Your task to perform on an android device: Go to display settings Image 0: 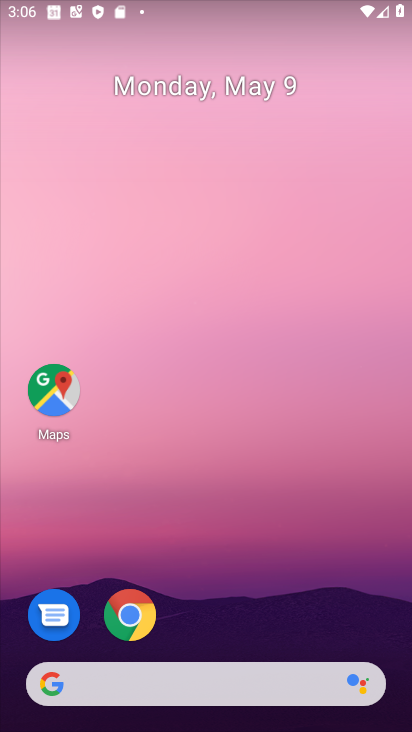
Step 0: drag from (207, 626) to (204, 325)
Your task to perform on an android device: Go to display settings Image 1: 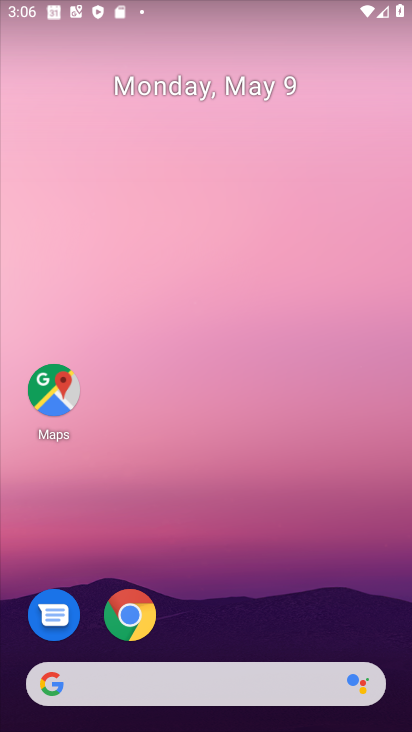
Step 1: drag from (231, 589) to (259, 306)
Your task to perform on an android device: Go to display settings Image 2: 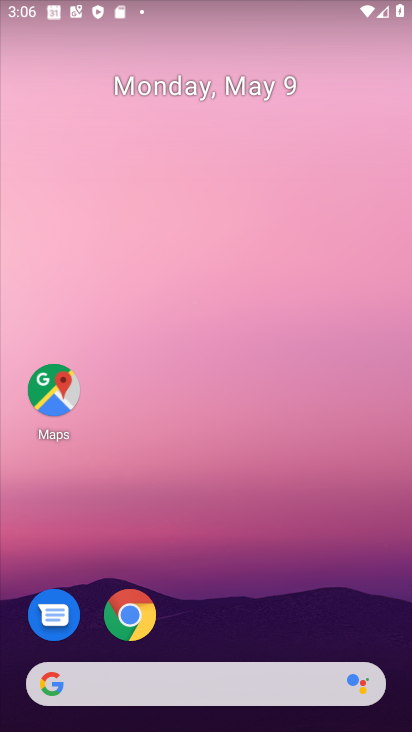
Step 2: drag from (226, 462) to (225, 237)
Your task to perform on an android device: Go to display settings Image 3: 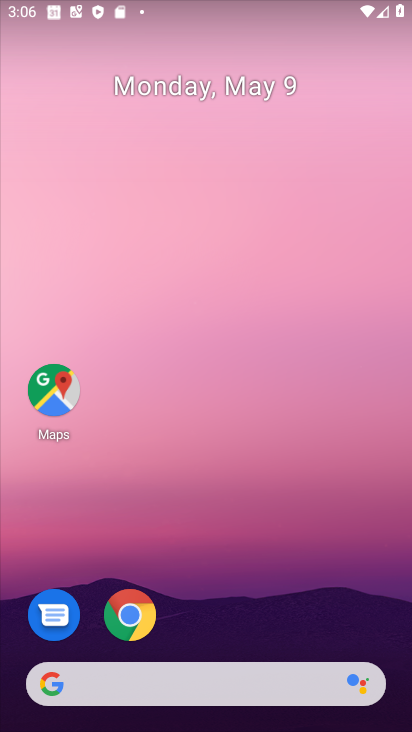
Step 3: drag from (228, 639) to (279, 165)
Your task to perform on an android device: Go to display settings Image 4: 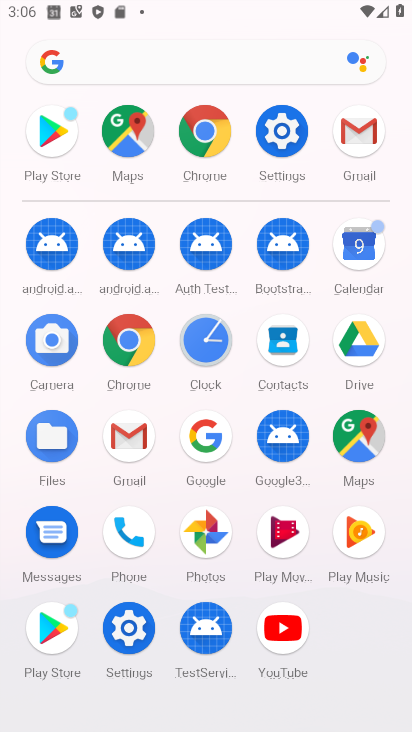
Step 4: click (365, 423)
Your task to perform on an android device: Go to display settings Image 5: 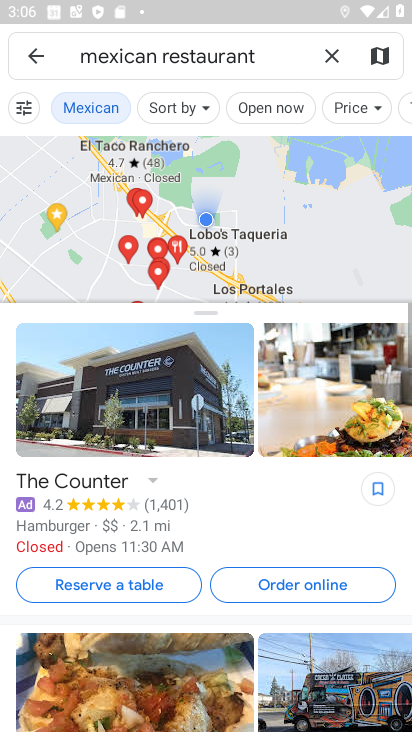
Step 5: click (326, 49)
Your task to perform on an android device: Go to display settings Image 6: 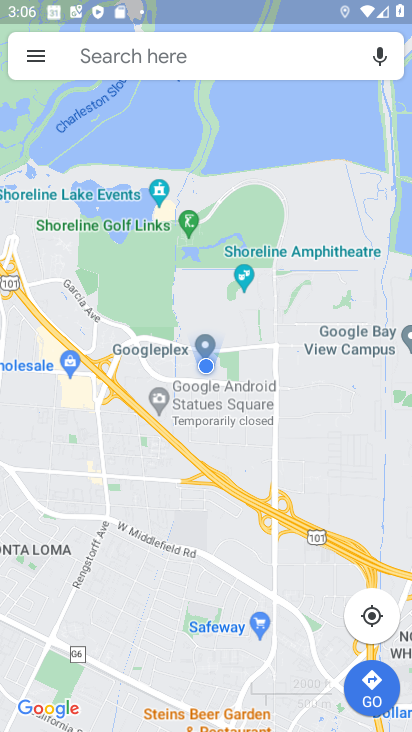
Step 6: click (205, 46)
Your task to perform on an android device: Go to display settings Image 7: 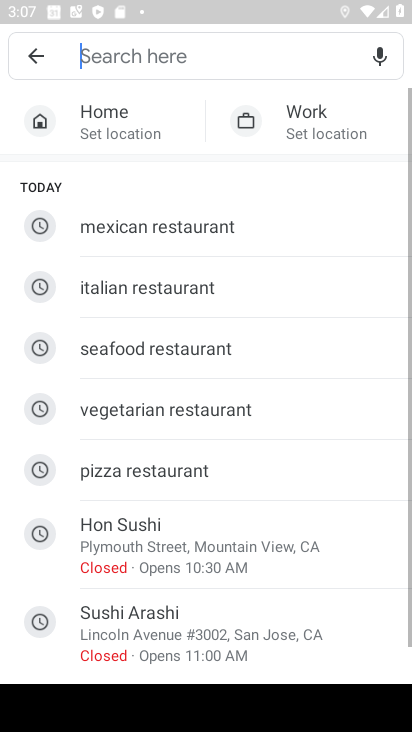
Step 7: press home button
Your task to perform on an android device: Go to display settings Image 8: 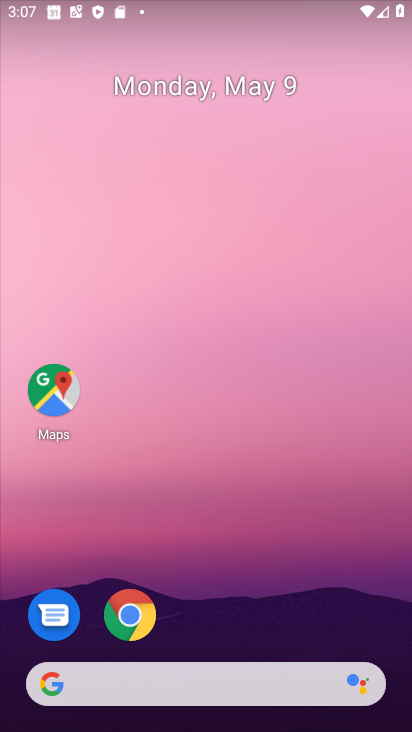
Step 8: drag from (181, 558) to (215, 237)
Your task to perform on an android device: Go to display settings Image 9: 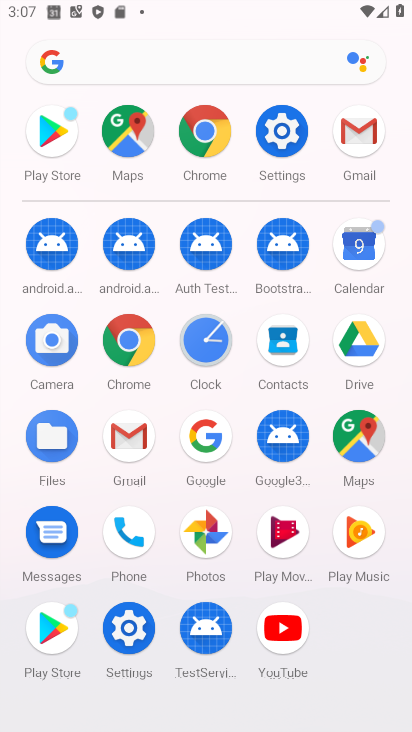
Step 9: click (268, 119)
Your task to perform on an android device: Go to display settings Image 10: 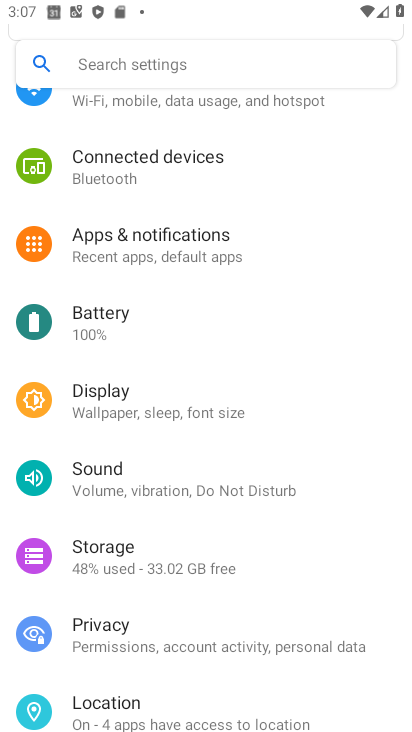
Step 10: click (131, 417)
Your task to perform on an android device: Go to display settings Image 11: 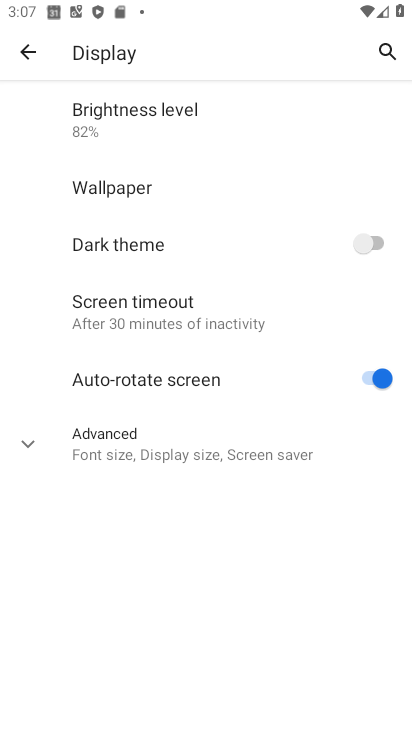
Step 11: task complete